Your task to perform on an android device: Go to Wikipedia Image 0: 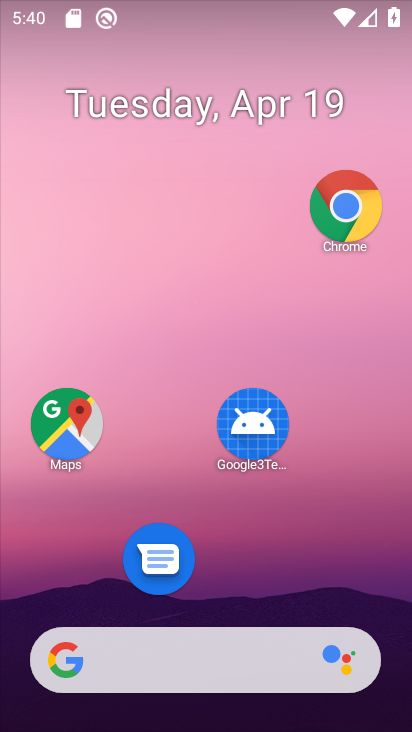
Step 0: drag from (251, 672) to (215, 65)
Your task to perform on an android device: Go to Wikipedia Image 1: 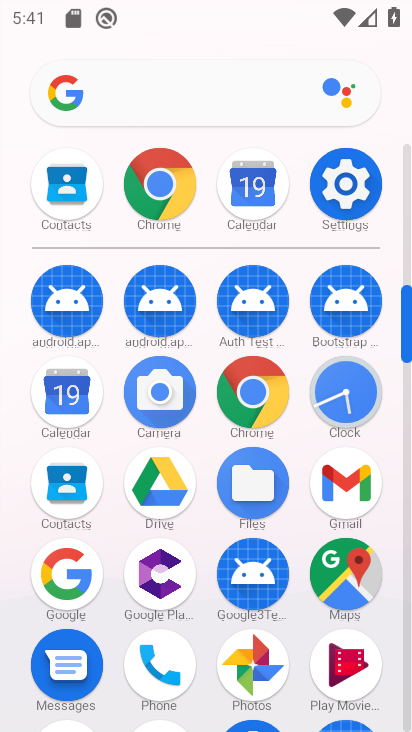
Step 1: click (251, 394)
Your task to perform on an android device: Go to Wikipedia Image 2: 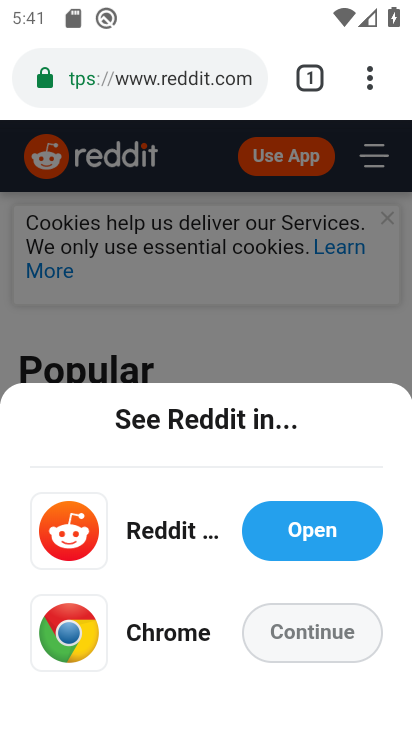
Step 2: click (228, 77)
Your task to perform on an android device: Go to Wikipedia Image 3: 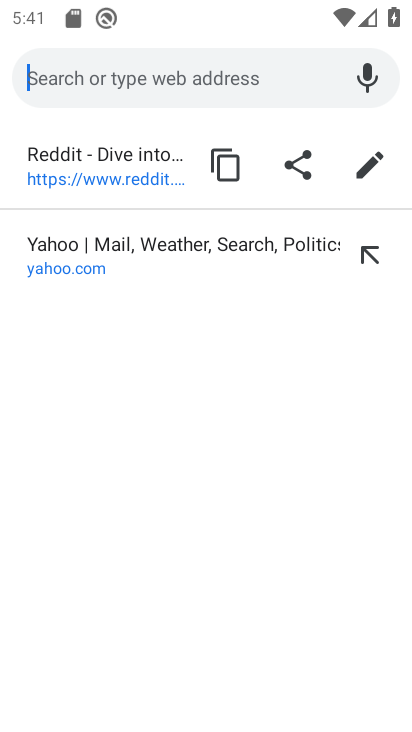
Step 3: click (256, 77)
Your task to perform on an android device: Go to Wikipedia Image 4: 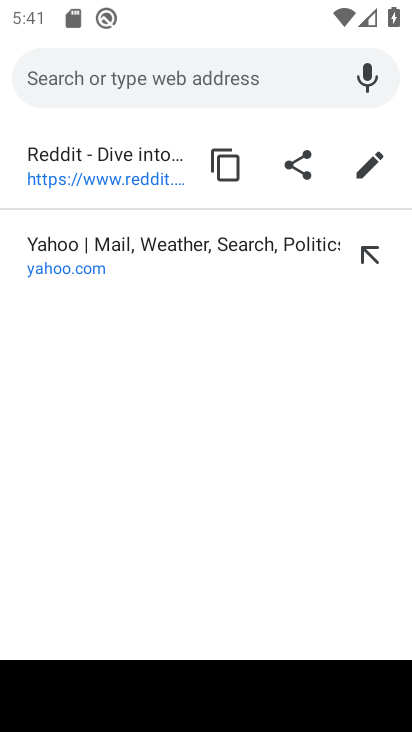
Step 4: click (111, 76)
Your task to perform on an android device: Go to Wikipedia Image 5: 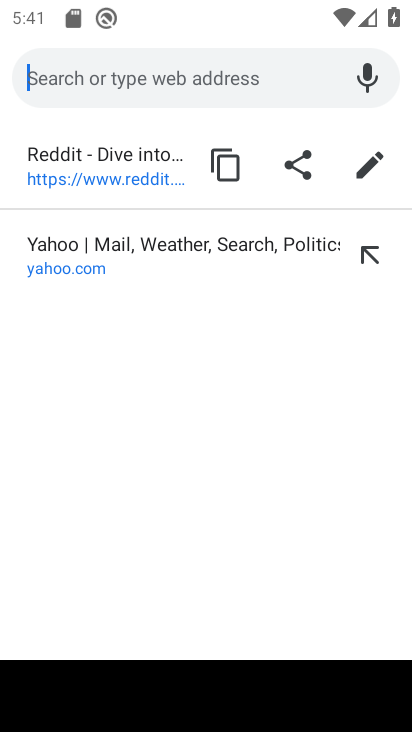
Step 5: click (147, 409)
Your task to perform on an android device: Go to Wikipedia Image 6: 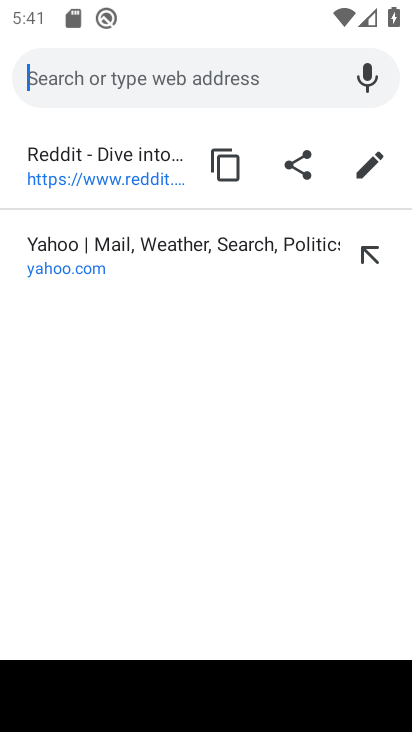
Step 6: press back button
Your task to perform on an android device: Go to Wikipedia Image 7: 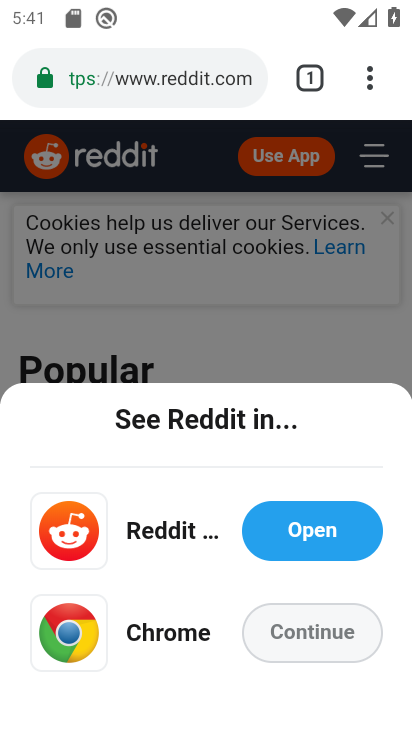
Step 7: press back button
Your task to perform on an android device: Go to Wikipedia Image 8: 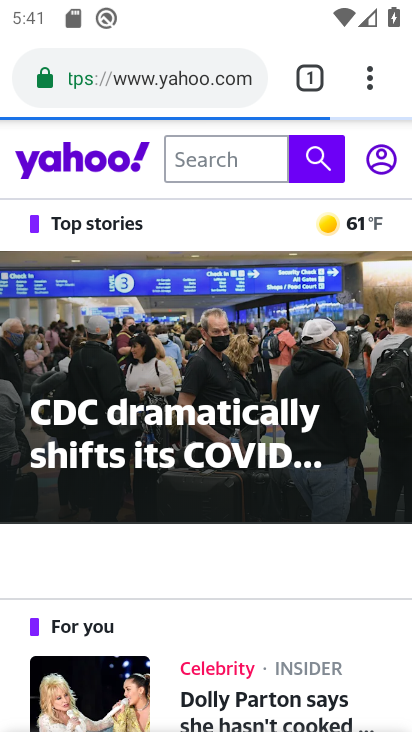
Step 8: click (362, 70)
Your task to perform on an android device: Go to Wikipedia Image 9: 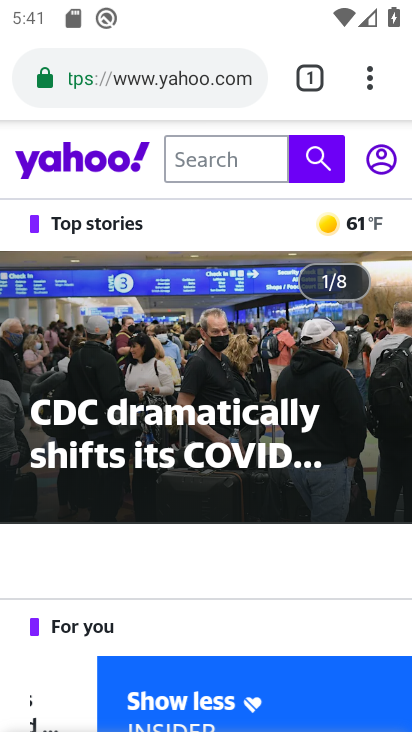
Step 9: click (375, 89)
Your task to perform on an android device: Go to Wikipedia Image 10: 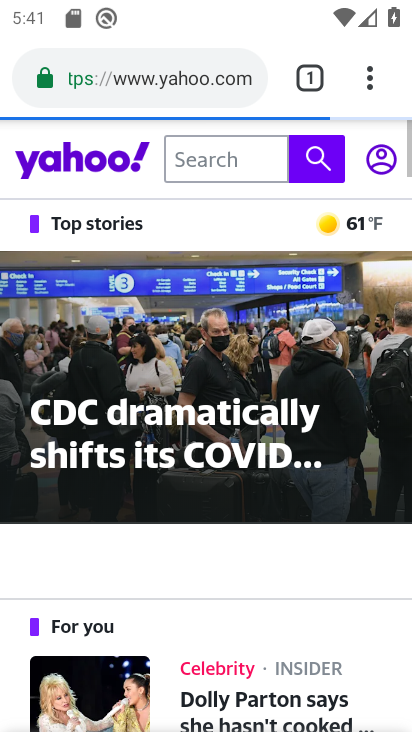
Step 10: drag from (379, 81) to (87, 151)
Your task to perform on an android device: Go to Wikipedia Image 11: 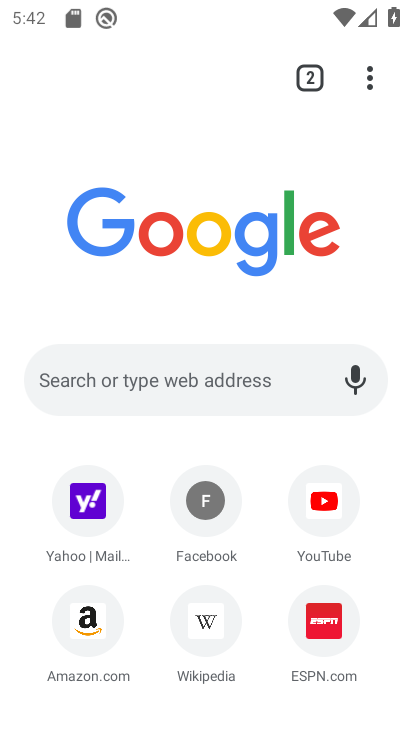
Step 11: click (208, 662)
Your task to perform on an android device: Go to Wikipedia Image 12: 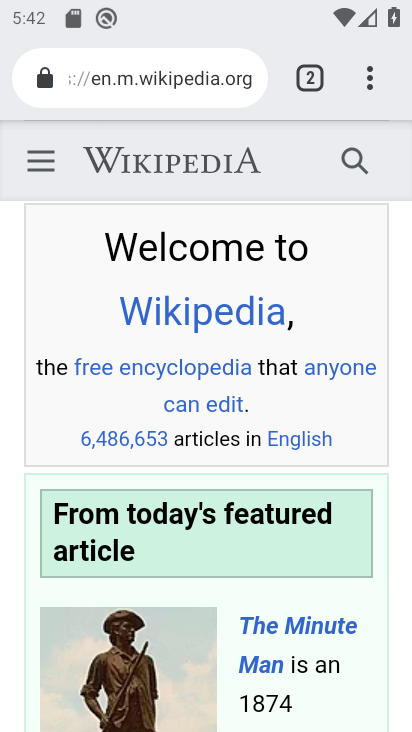
Step 12: task complete